Your task to perform on an android device: Open internet settings Image 0: 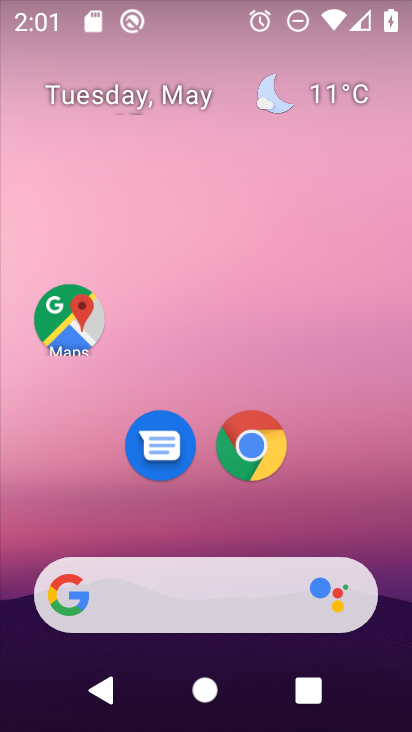
Step 0: drag from (377, 501) to (296, 88)
Your task to perform on an android device: Open internet settings Image 1: 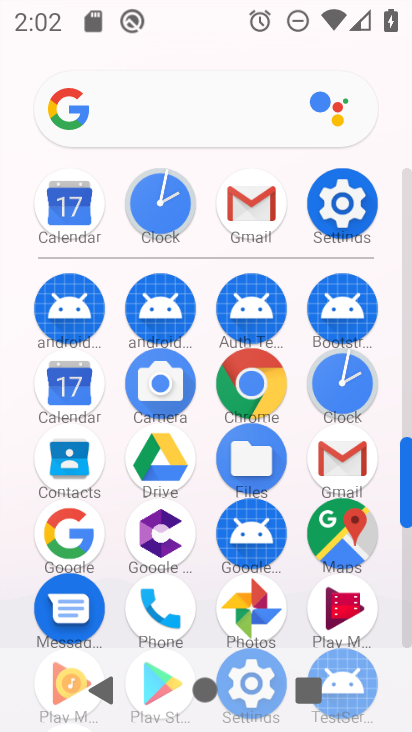
Step 1: click (340, 213)
Your task to perform on an android device: Open internet settings Image 2: 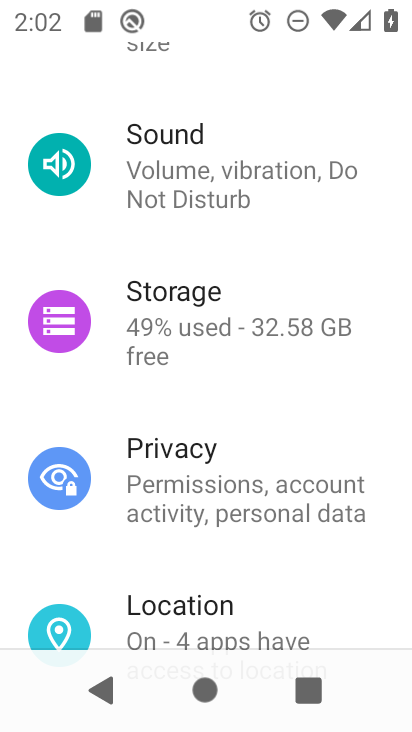
Step 2: drag from (205, 330) to (221, 657)
Your task to perform on an android device: Open internet settings Image 3: 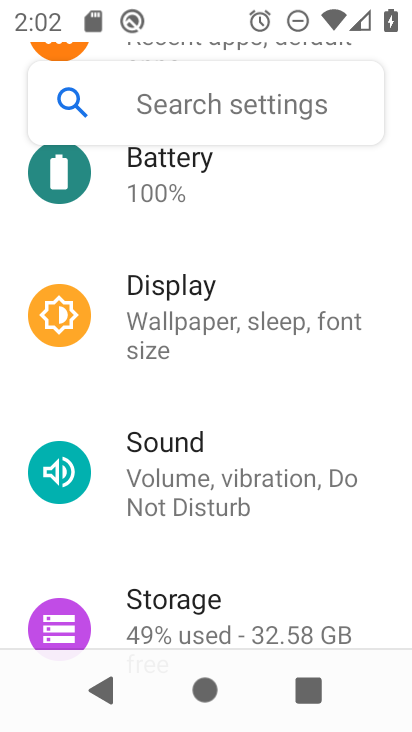
Step 3: drag from (211, 369) to (240, 700)
Your task to perform on an android device: Open internet settings Image 4: 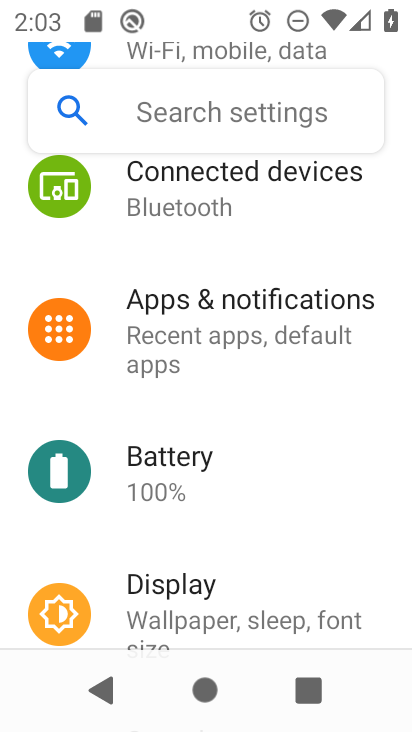
Step 4: drag from (210, 290) to (209, 343)
Your task to perform on an android device: Open internet settings Image 5: 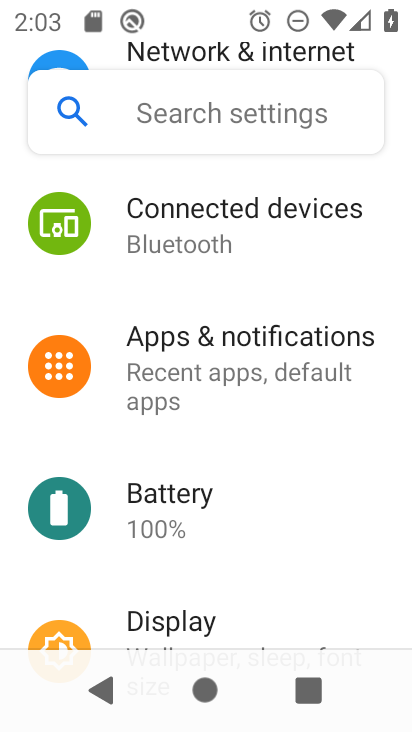
Step 5: drag from (209, 343) to (228, 731)
Your task to perform on an android device: Open internet settings Image 6: 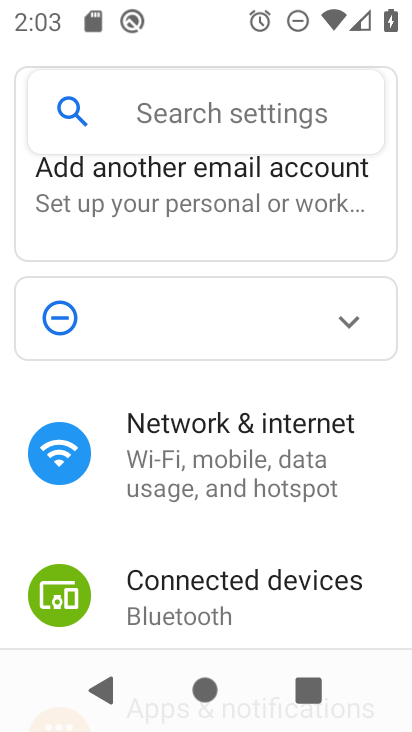
Step 6: click (162, 423)
Your task to perform on an android device: Open internet settings Image 7: 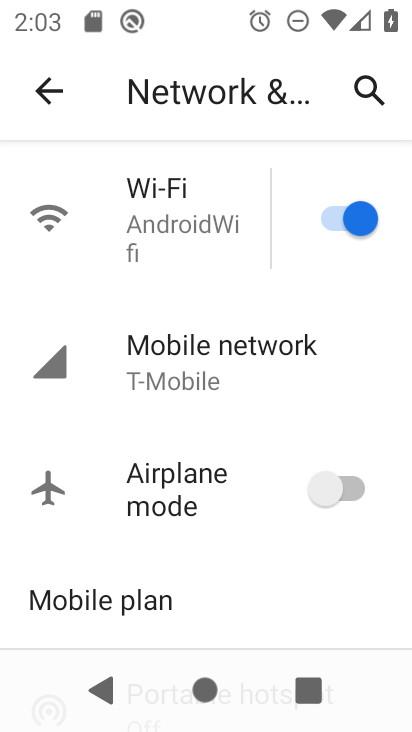
Step 7: task complete